Your task to perform on an android device: Search for pizza restaurants on Maps Image 0: 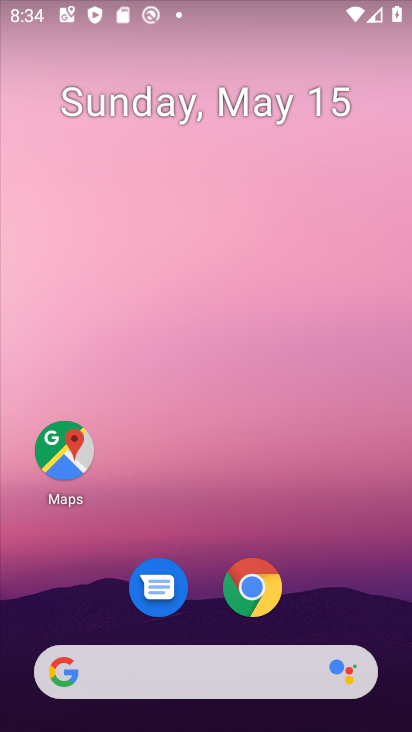
Step 0: drag from (369, 624) to (253, 47)
Your task to perform on an android device: Search for pizza restaurants on Maps Image 1: 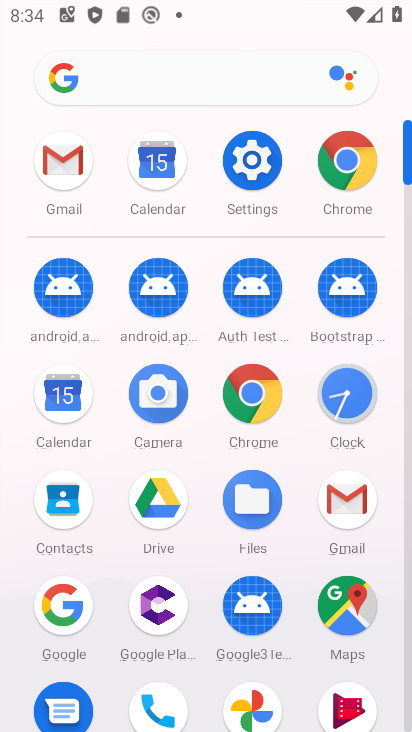
Step 1: click (346, 621)
Your task to perform on an android device: Search for pizza restaurants on Maps Image 2: 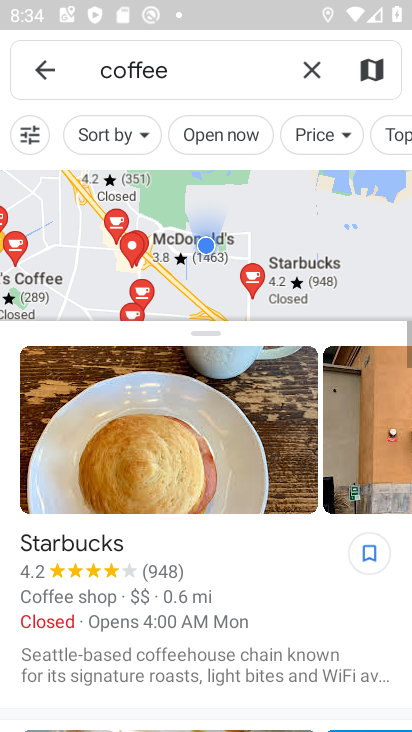
Step 2: click (317, 65)
Your task to perform on an android device: Search for pizza restaurants on Maps Image 3: 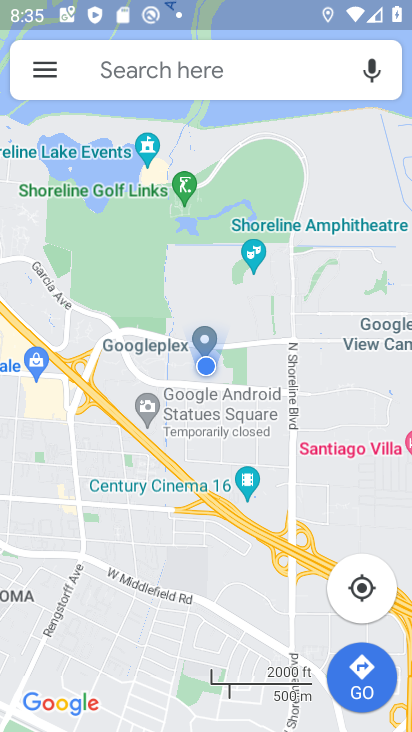
Step 3: click (204, 68)
Your task to perform on an android device: Search for pizza restaurants on Maps Image 4: 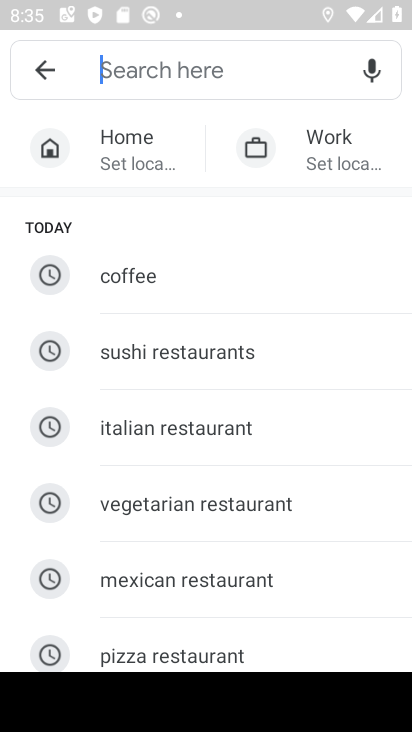
Step 4: click (162, 642)
Your task to perform on an android device: Search for pizza restaurants on Maps Image 5: 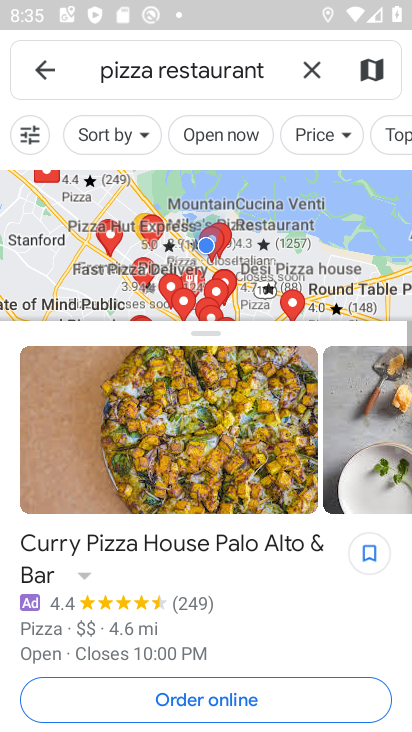
Step 5: task complete